Your task to perform on an android device: Search for Italian restaurants on Maps Image 0: 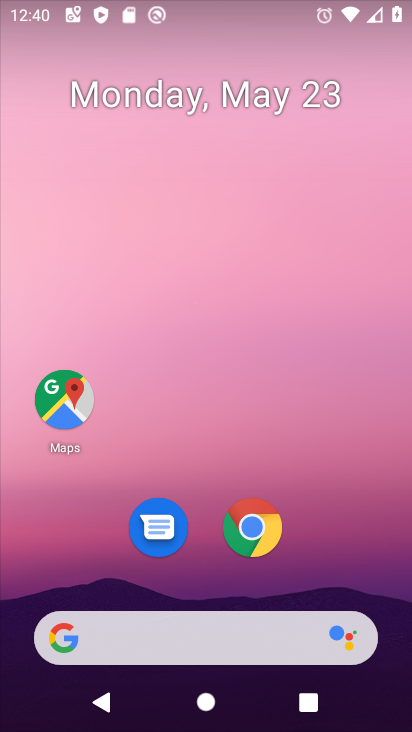
Step 0: click (58, 433)
Your task to perform on an android device: Search for Italian restaurants on Maps Image 1: 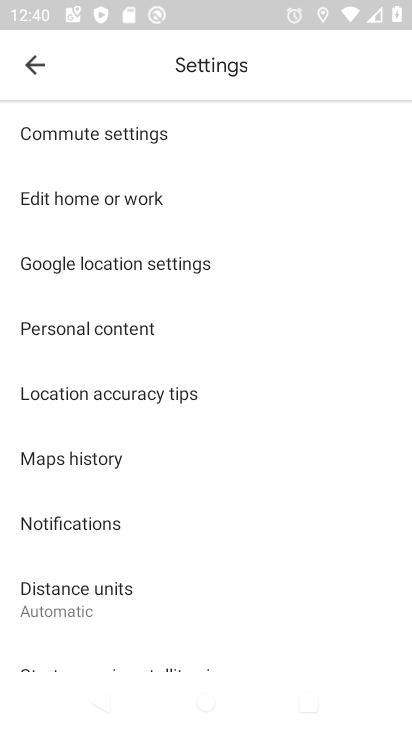
Step 1: click (32, 53)
Your task to perform on an android device: Search for Italian restaurants on Maps Image 2: 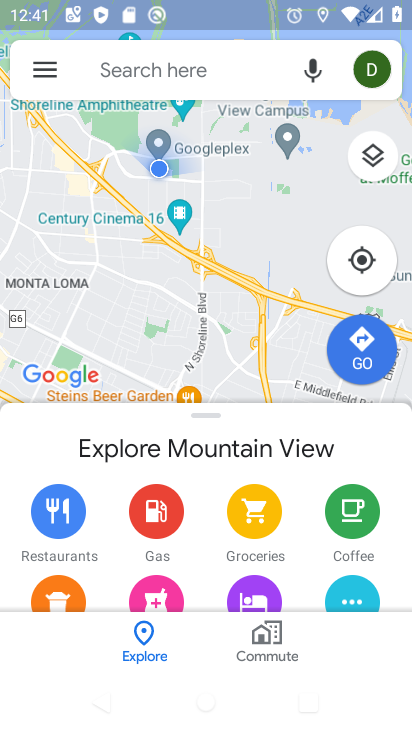
Step 2: click (91, 74)
Your task to perform on an android device: Search for Italian restaurants on Maps Image 3: 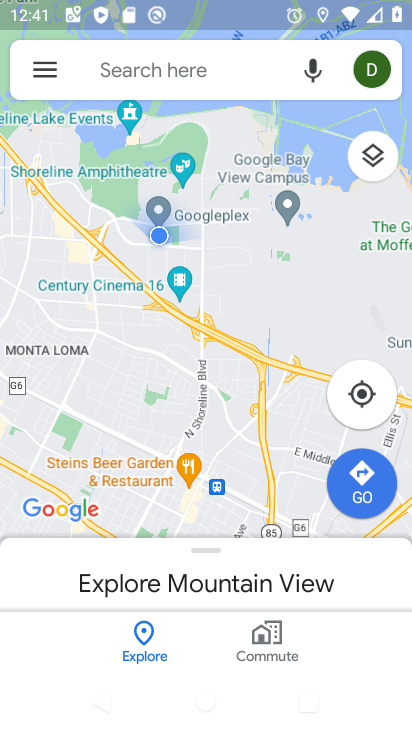
Step 3: click (130, 84)
Your task to perform on an android device: Search for Italian restaurants on Maps Image 4: 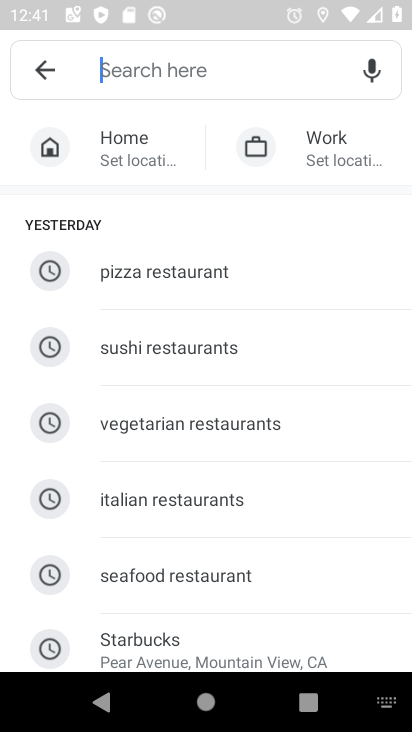
Step 4: click (220, 506)
Your task to perform on an android device: Search for Italian restaurants on Maps Image 5: 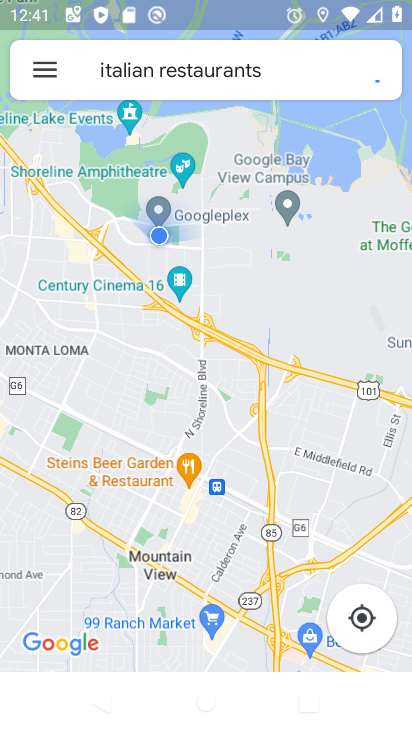
Step 5: task complete